Your task to perform on an android device: turn on translation in the chrome app Image 0: 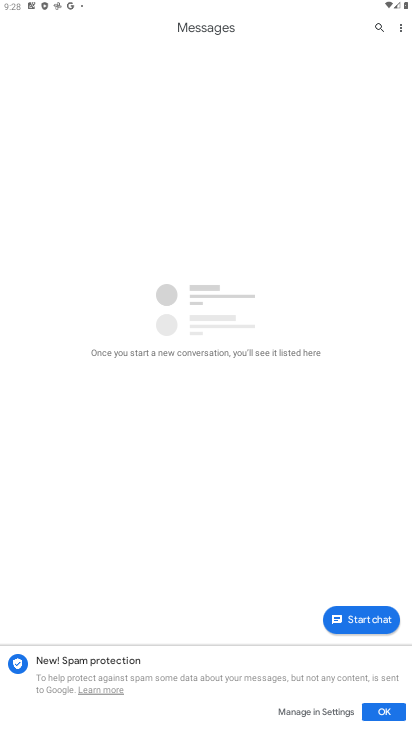
Step 0: task complete